Your task to perform on an android device: set default search engine in the chrome app Image 0: 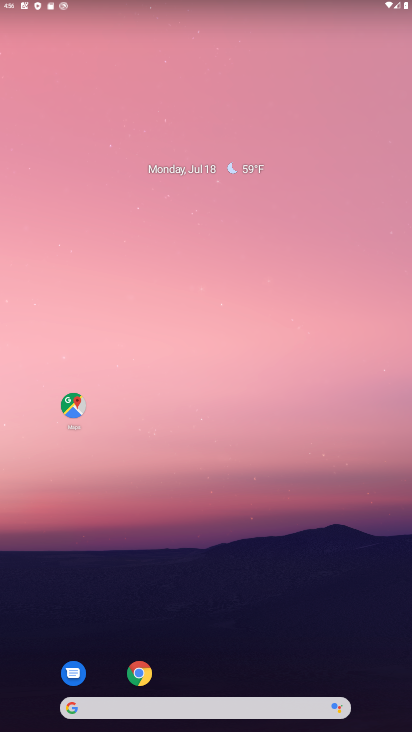
Step 0: drag from (169, 568) to (101, 35)
Your task to perform on an android device: set default search engine in the chrome app Image 1: 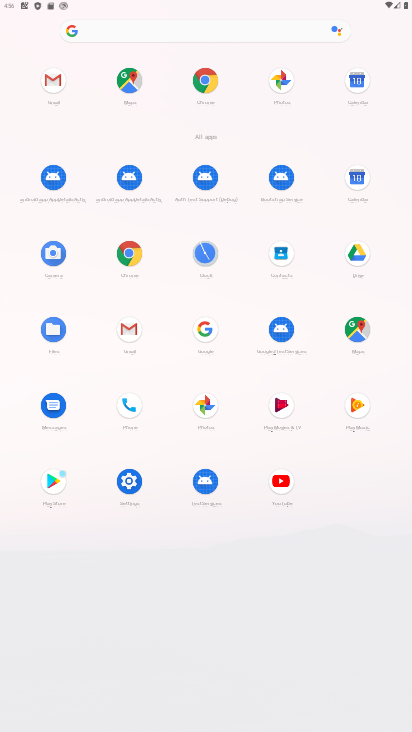
Step 1: click (197, 87)
Your task to perform on an android device: set default search engine in the chrome app Image 2: 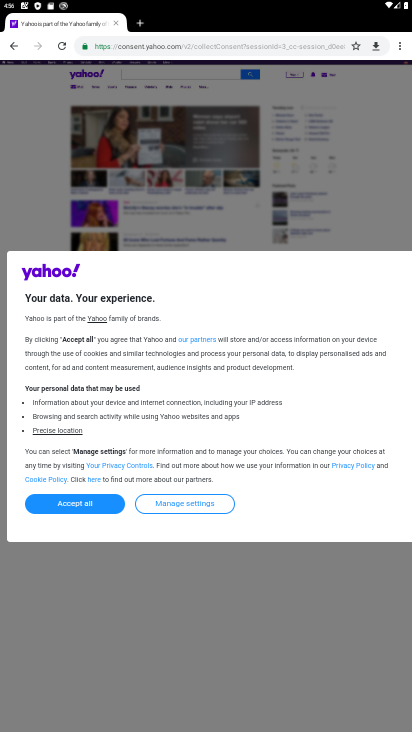
Step 2: drag from (397, 53) to (304, 311)
Your task to perform on an android device: set default search engine in the chrome app Image 3: 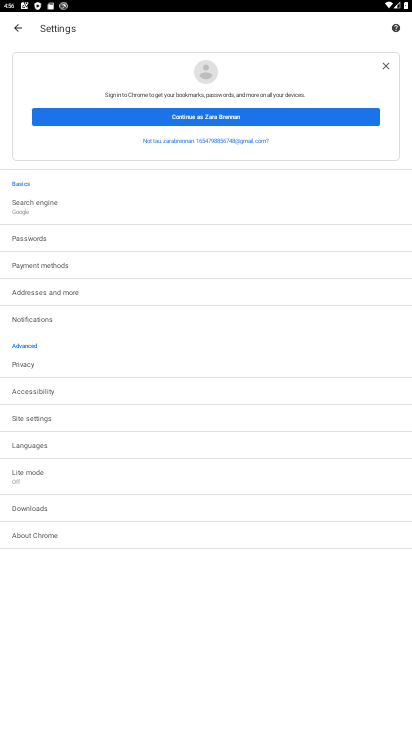
Step 3: click (56, 208)
Your task to perform on an android device: set default search engine in the chrome app Image 4: 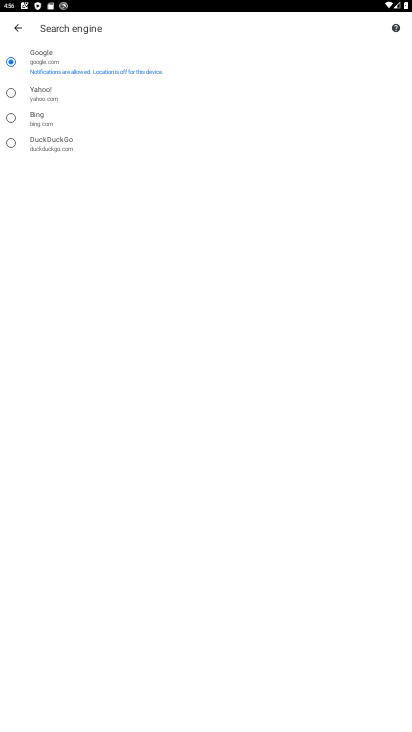
Step 4: task complete